Your task to perform on an android device: turn on airplane mode Image 0: 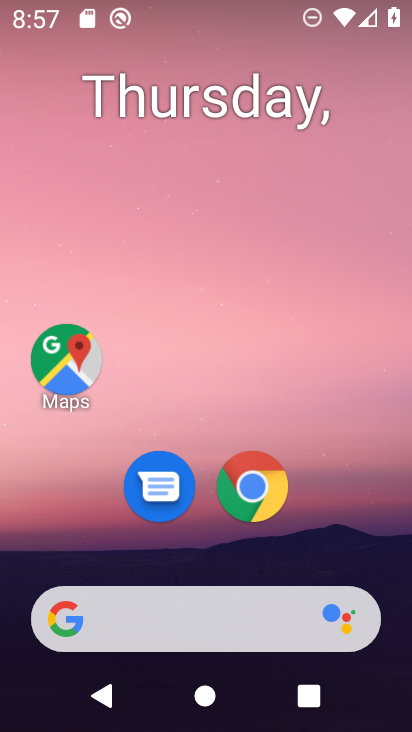
Step 0: drag from (310, 34) to (208, 671)
Your task to perform on an android device: turn on airplane mode Image 1: 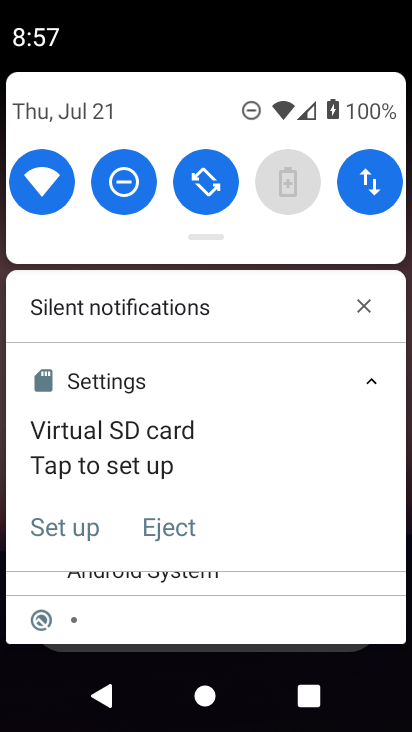
Step 1: drag from (209, 226) to (182, 726)
Your task to perform on an android device: turn on airplane mode Image 2: 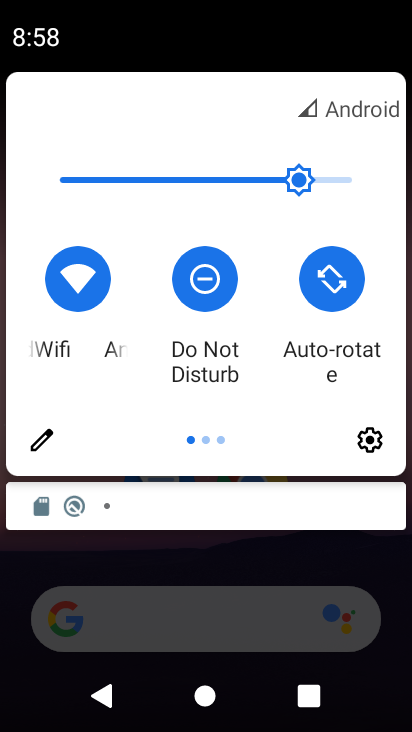
Step 2: drag from (339, 305) to (16, 327)
Your task to perform on an android device: turn on airplane mode Image 3: 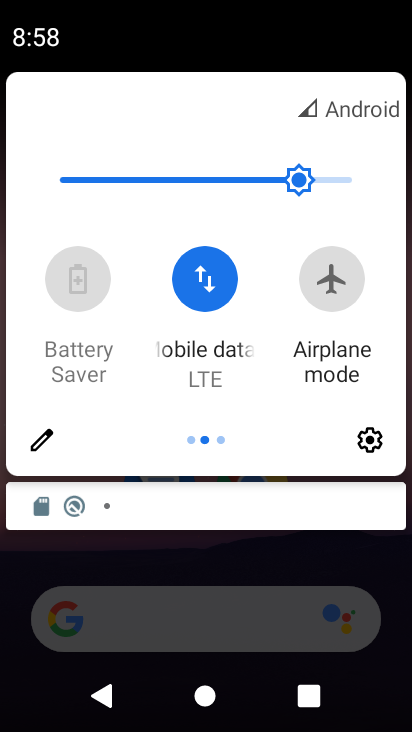
Step 3: drag from (329, 306) to (0, 385)
Your task to perform on an android device: turn on airplane mode Image 4: 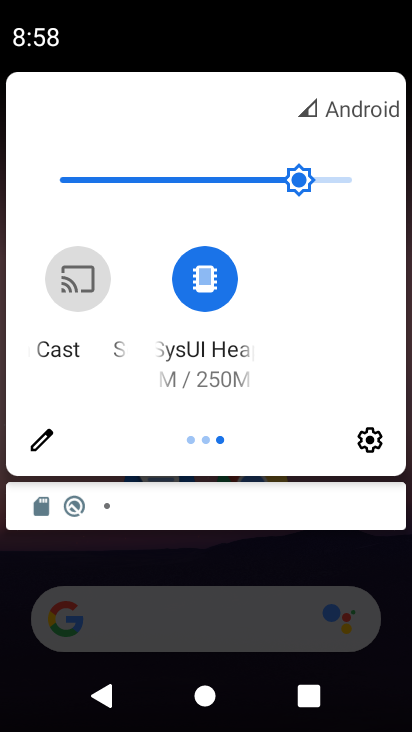
Step 4: drag from (118, 306) to (409, 324)
Your task to perform on an android device: turn on airplane mode Image 5: 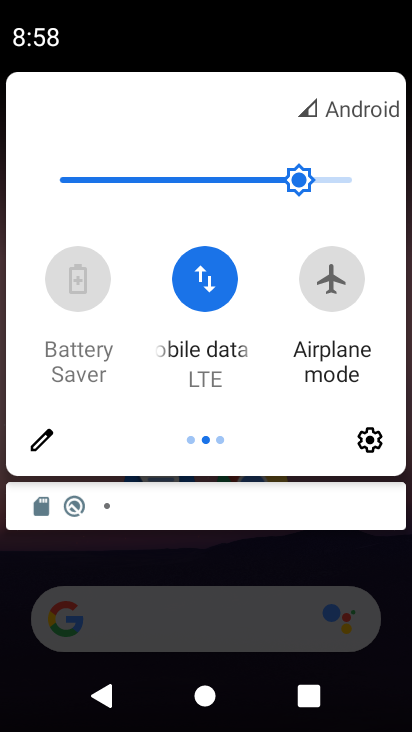
Step 5: click (193, 273)
Your task to perform on an android device: turn on airplane mode Image 6: 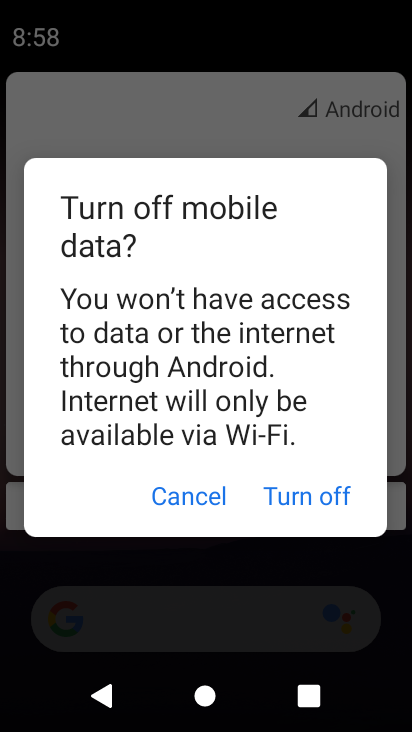
Step 6: click (187, 485)
Your task to perform on an android device: turn on airplane mode Image 7: 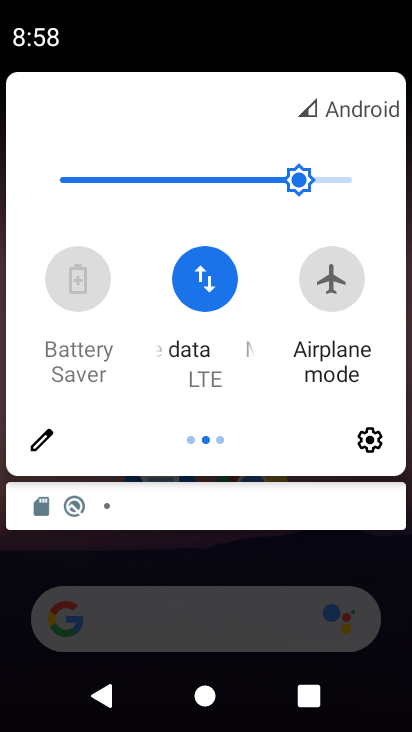
Step 7: click (321, 258)
Your task to perform on an android device: turn on airplane mode Image 8: 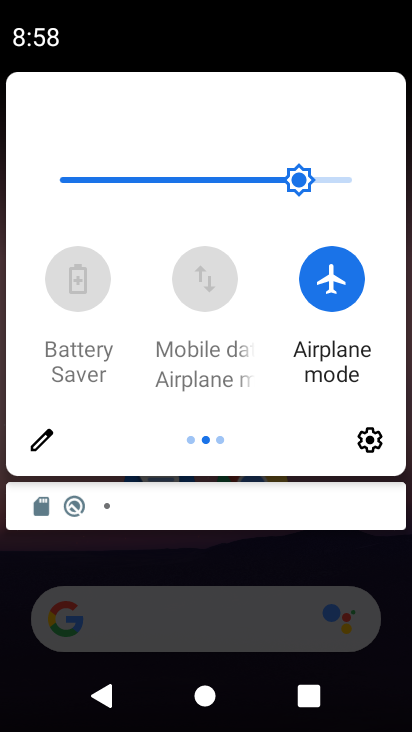
Step 8: task complete